Your task to perform on an android device: create a new album in the google photos Image 0: 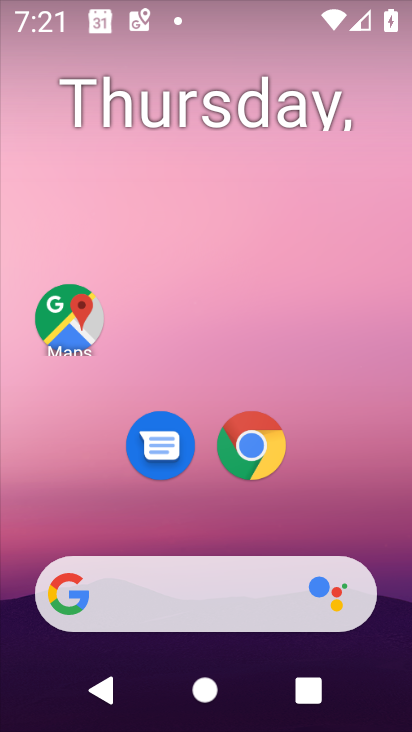
Step 0: drag from (395, 605) to (320, 60)
Your task to perform on an android device: create a new album in the google photos Image 1: 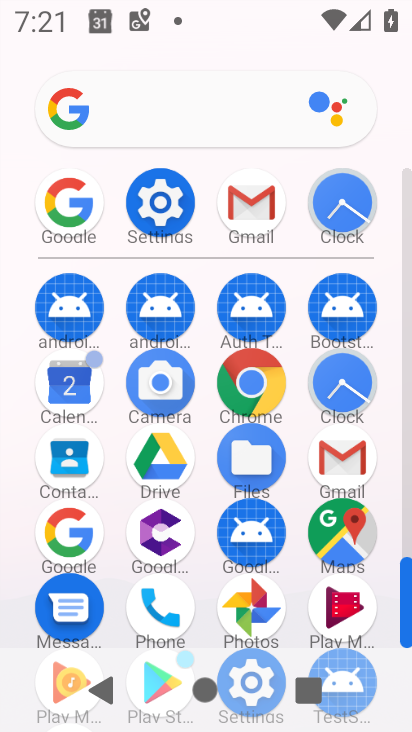
Step 1: click (239, 594)
Your task to perform on an android device: create a new album in the google photos Image 2: 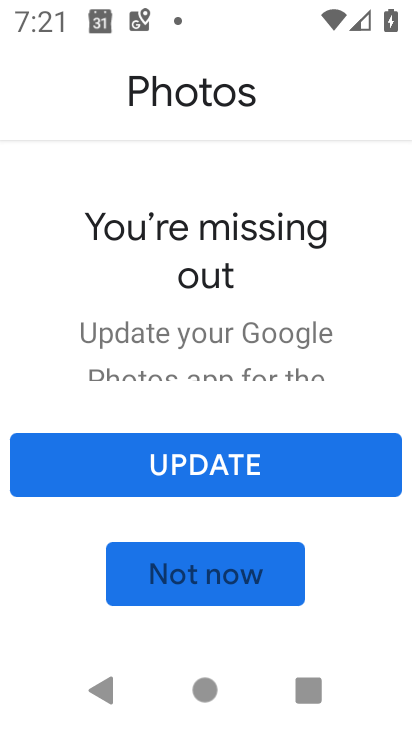
Step 2: click (223, 469)
Your task to perform on an android device: create a new album in the google photos Image 3: 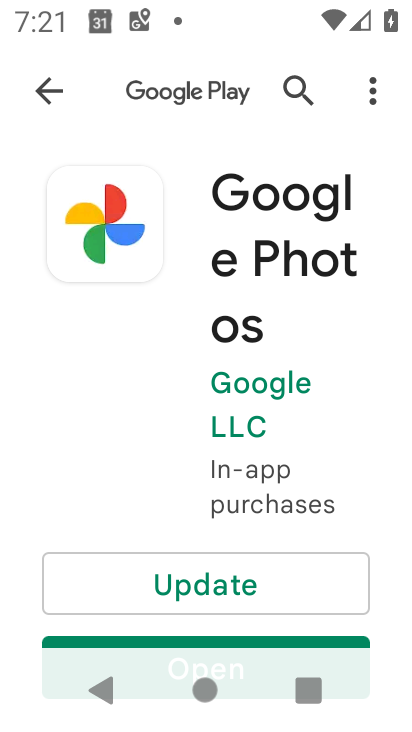
Step 3: click (262, 573)
Your task to perform on an android device: create a new album in the google photos Image 4: 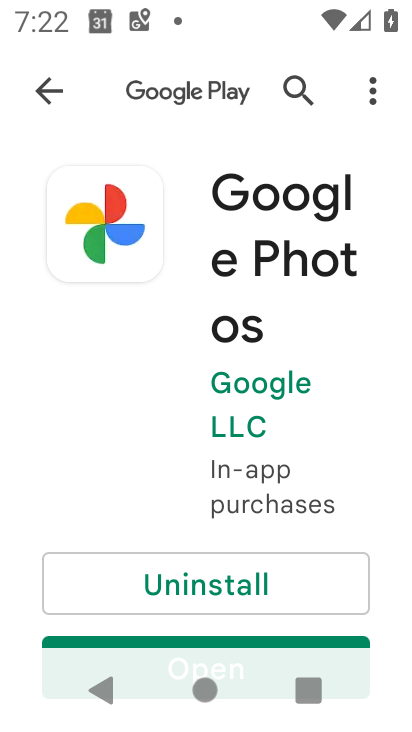
Step 4: drag from (187, 519) to (149, 105)
Your task to perform on an android device: create a new album in the google photos Image 5: 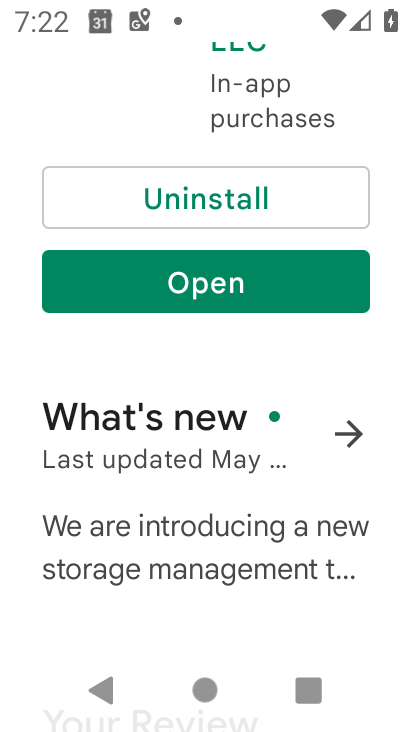
Step 5: click (205, 300)
Your task to perform on an android device: create a new album in the google photos Image 6: 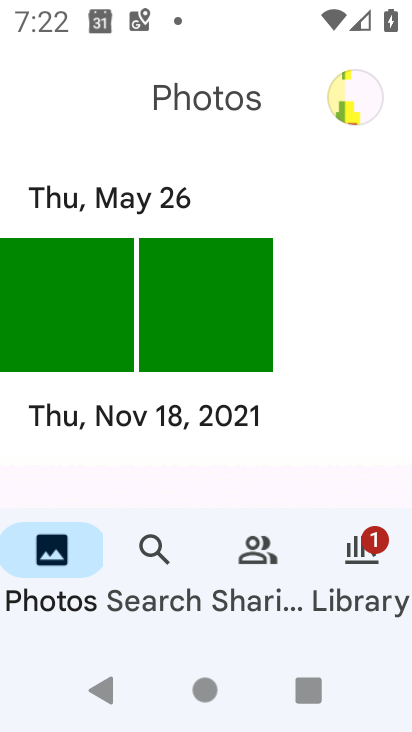
Step 6: click (96, 298)
Your task to perform on an android device: create a new album in the google photos Image 7: 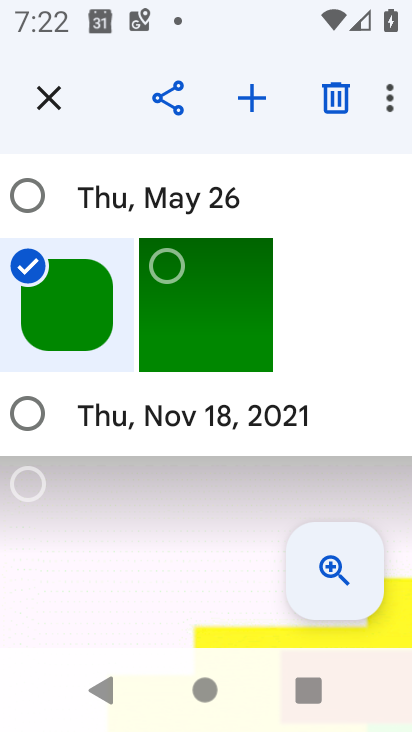
Step 7: click (193, 328)
Your task to perform on an android device: create a new album in the google photos Image 8: 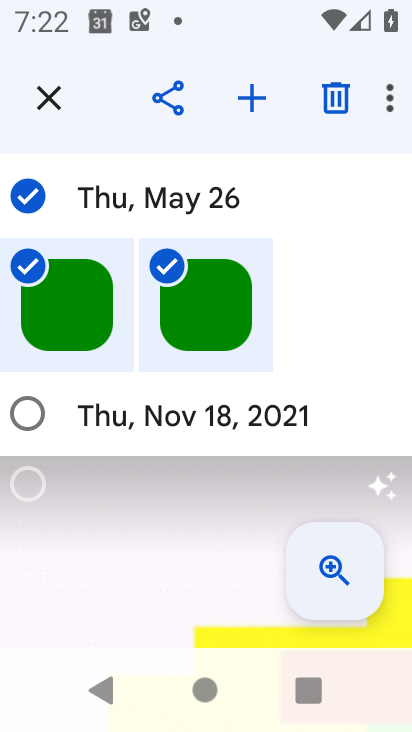
Step 8: click (261, 97)
Your task to perform on an android device: create a new album in the google photos Image 9: 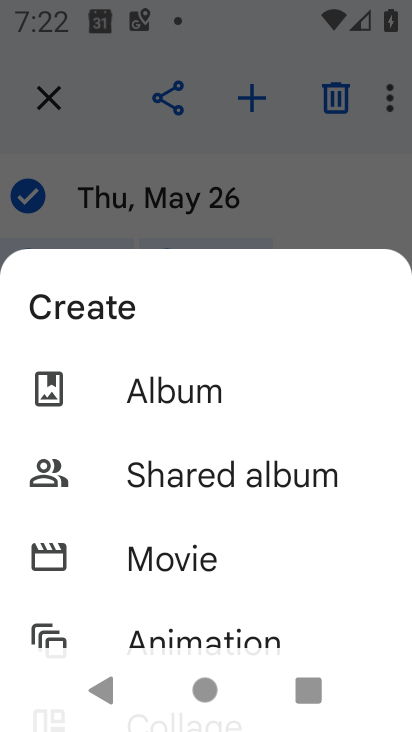
Step 9: click (141, 387)
Your task to perform on an android device: create a new album in the google photos Image 10: 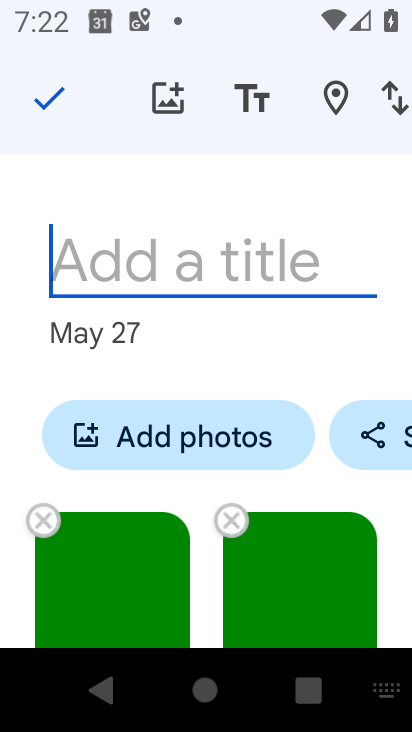
Step 10: type "jsssss"
Your task to perform on an android device: create a new album in the google photos Image 11: 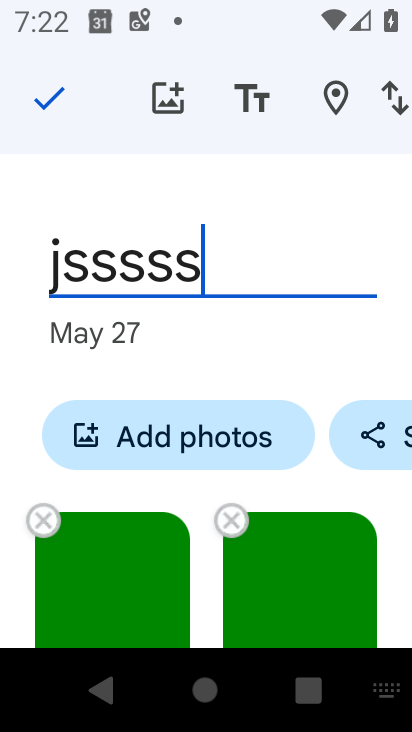
Step 11: click (66, 86)
Your task to perform on an android device: create a new album in the google photos Image 12: 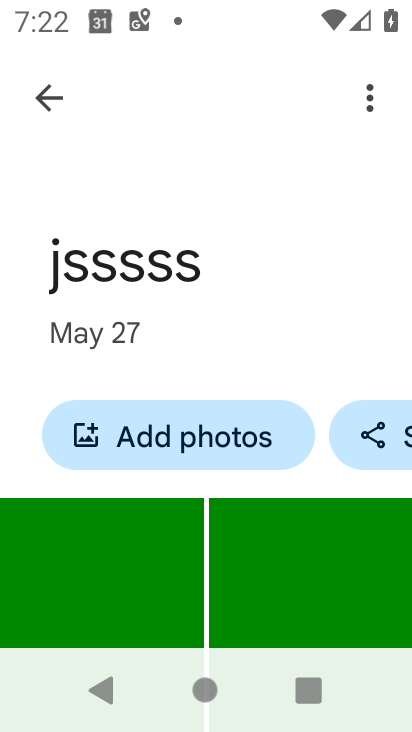
Step 12: task complete